Your task to perform on an android device: Open settings Image 0: 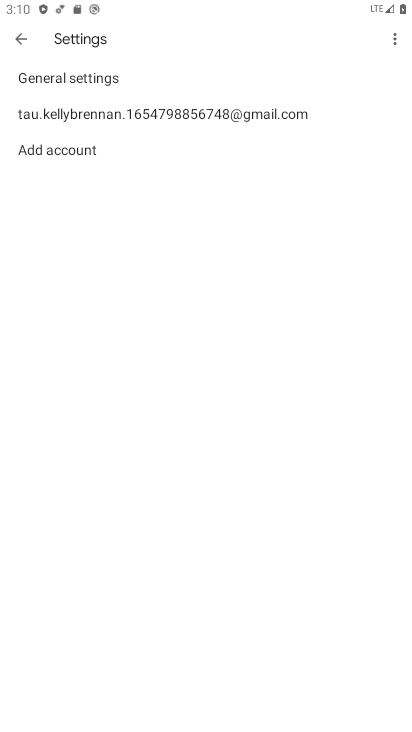
Step 0: press home button
Your task to perform on an android device: Open settings Image 1: 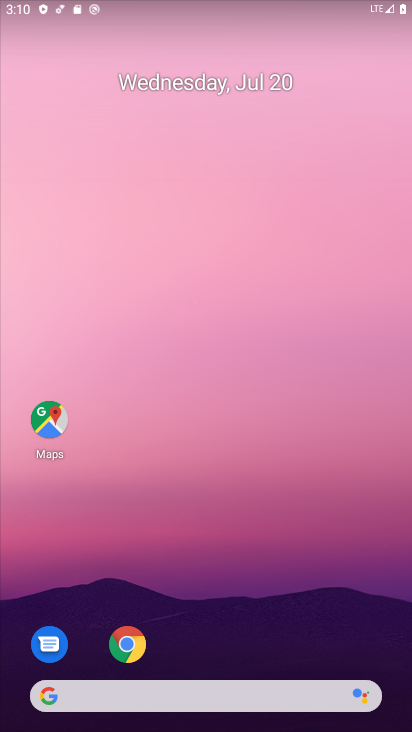
Step 1: drag from (16, 674) to (174, 139)
Your task to perform on an android device: Open settings Image 2: 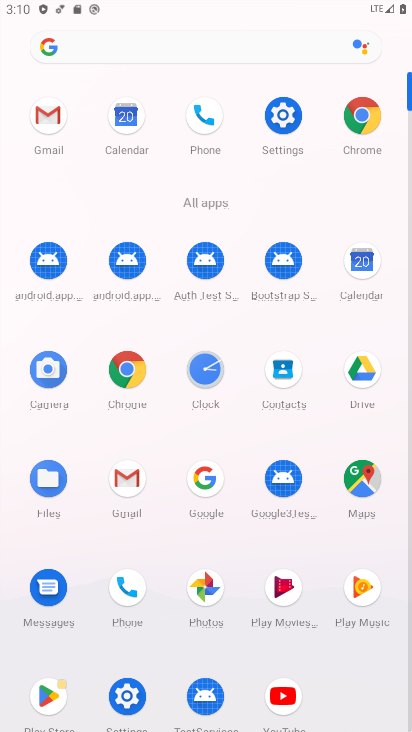
Step 2: click (147, 705)
Your task to perform on an android device: Open settings Image 3: 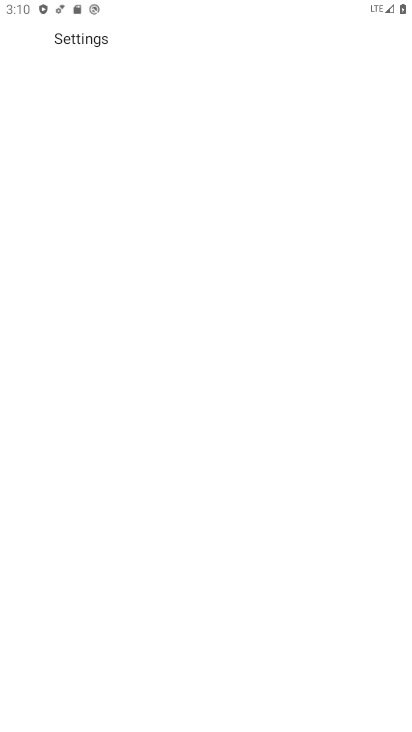
Step 3: click (131, 698)
Your task to perform on an android device: Open settings Image 4: 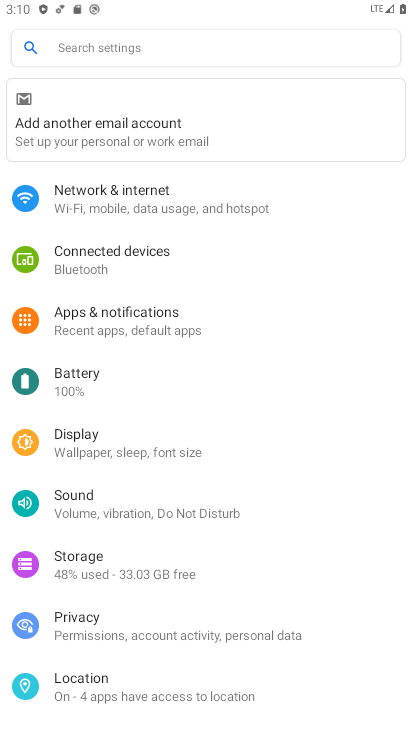
Step 4: task complete